Your task to perform on an android device: open a bookmark in the chrome app Image 0: 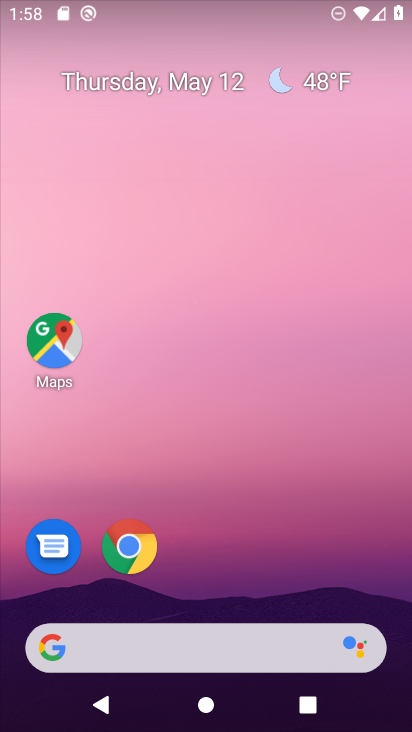
Step 0: drag from (288, 680) to (200, 273)
Your task to perform on an android device: open a bookmark in the chrome app Image 1: 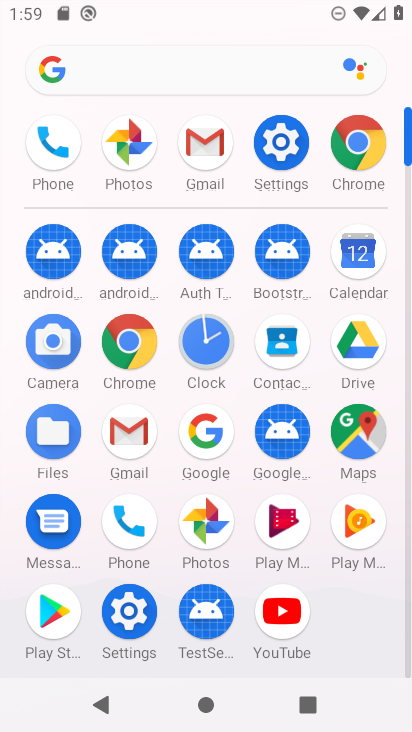
Step 1: click (346, 155)
Your task to perform on an android device: open a bookmark in the chrome app Image 2: 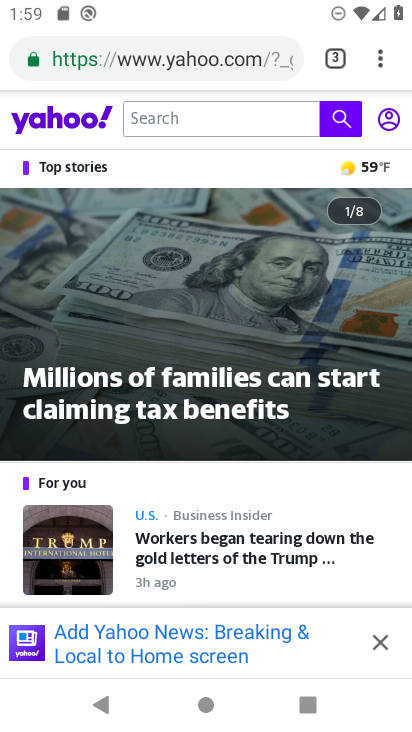
Step 2: click (374, 73)
Your task to perform on an android device: open a bookmark in the chrome app Image 3: 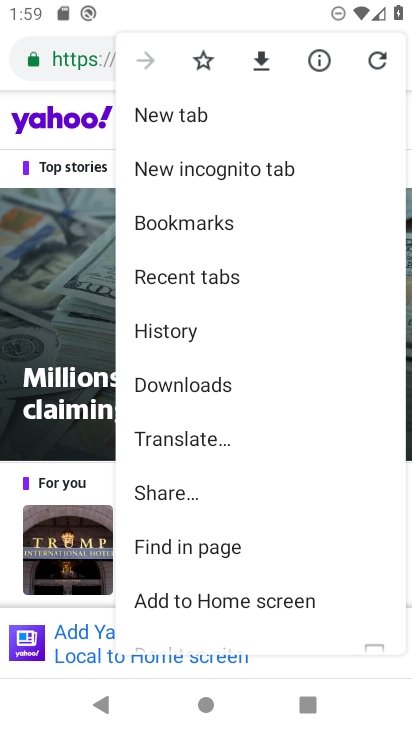
Step 3: click (210, 218)
Your task to perform on an android device: open a bookmark in the chrome app Image 4: 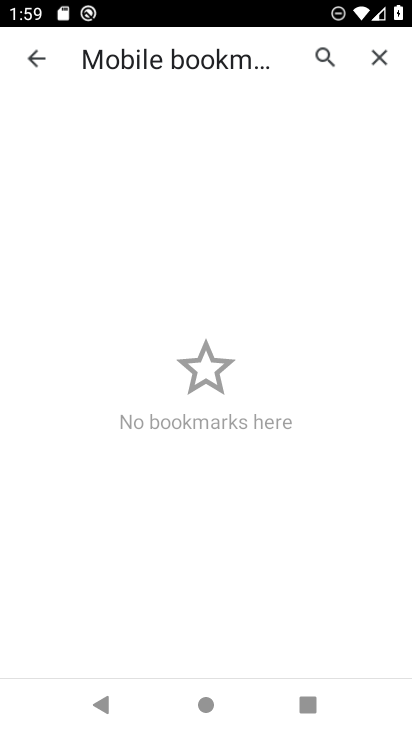
Step 4: task complete